Your task to perform on an android device: Go to Android settings Image 0: 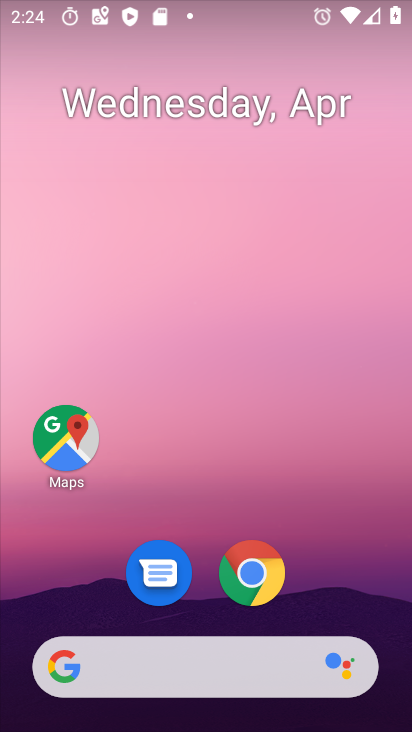
Step 0: drag from (343, 556) to (324, 125)
Your task to perform on an android device: Go to Android settings Image 1: 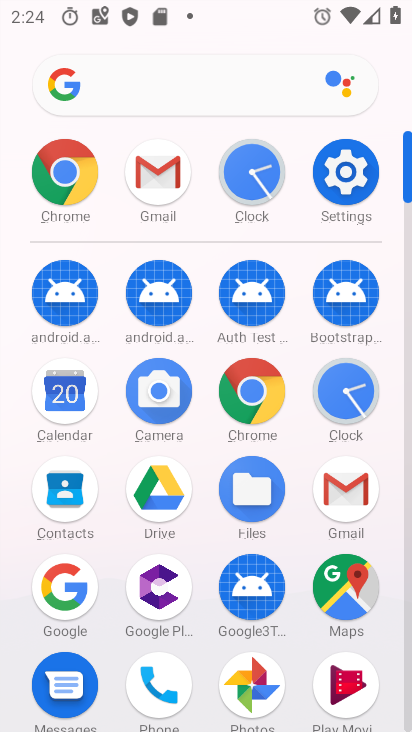
Step 1: click (351, 177)
Your task to perform on an android device: Go to Android settings Image 2: 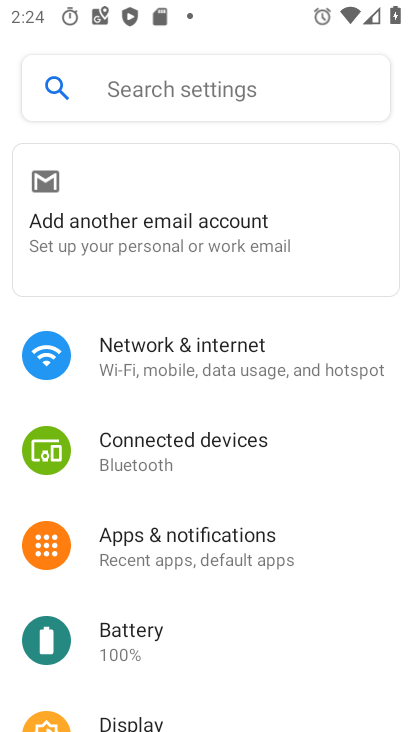
Step 2: drag from (349, 536) to (351, 303)
Your task to perform on an android device: Go to Android settings Image 3: 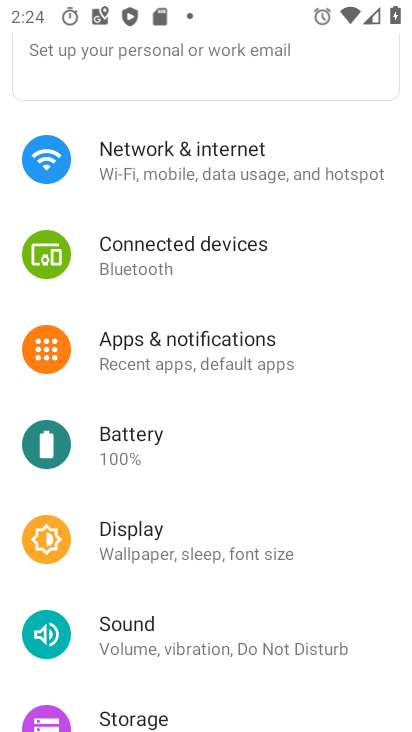
Step 3: drag from (346, 556) to (342, 347)
Your task to perform on an android device: Go to Android settings Image 4: 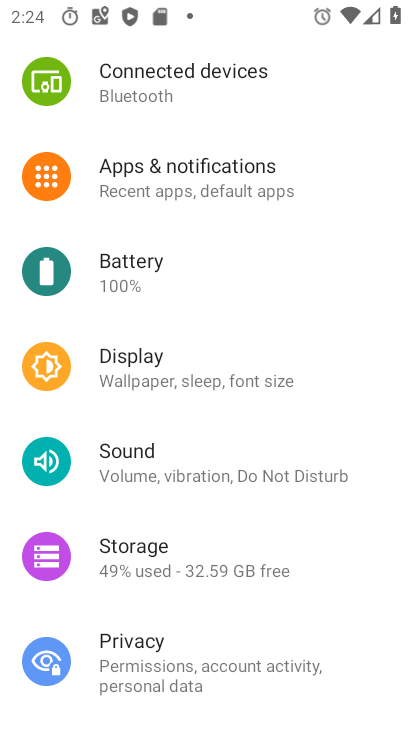
Step 4: drag from (361, 579) to (362, 351)
Your task to perform on an android device: Go to Android settings Image 5: 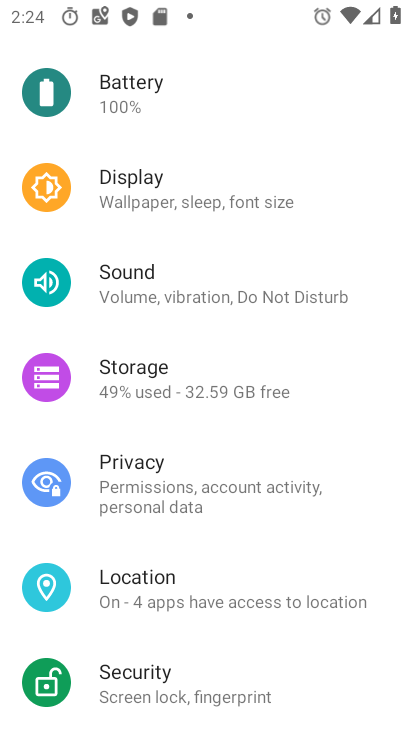
Step 5: drag from (368, 642) to (364, 398)
Your task to perform on an android device: Go to Android settings Image 6: 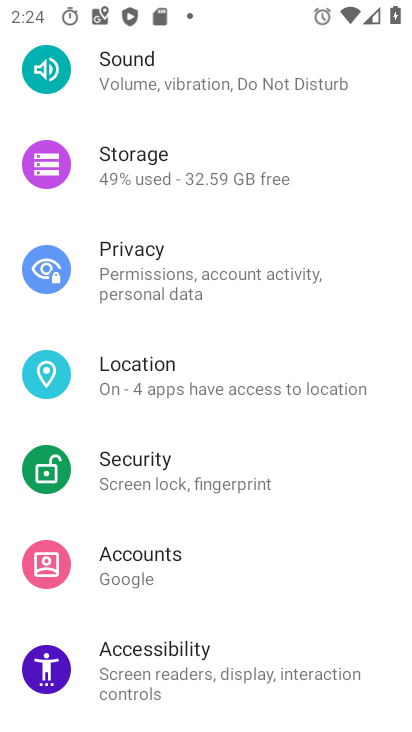
Step 6: drag from (340, 565) to (342, 389)
Your task to perform on an android device: Go to Android settings Image 7: 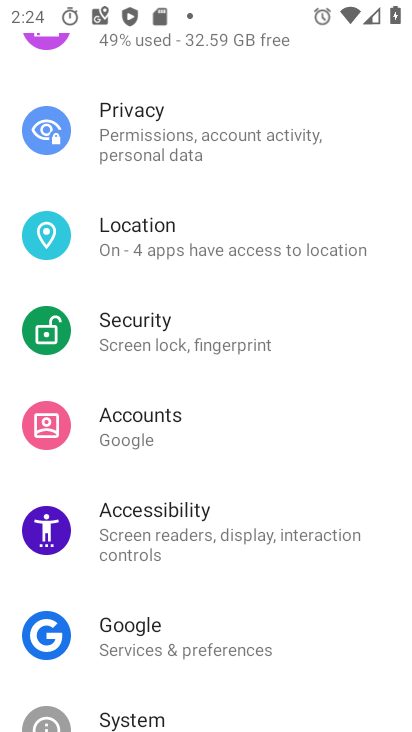
Step 7: drag from (355, 623) to (359, 421)
Your task to perform on an android device: Go to Android settings Image 8: 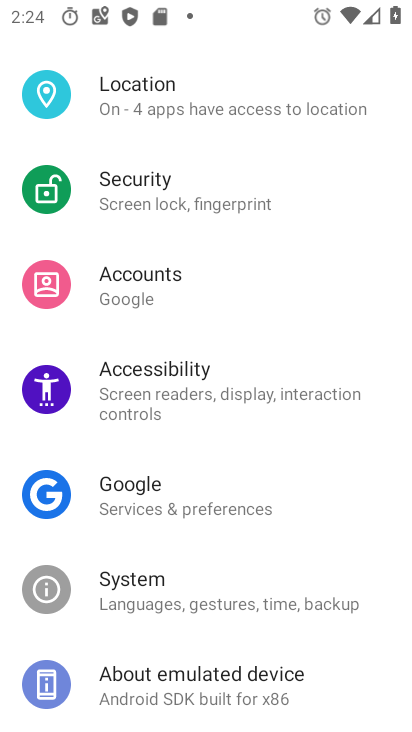
Step 8: drag from (330, 649) to (335, 464)
Your task to perform on an android device: Go to Android settings Image 9: 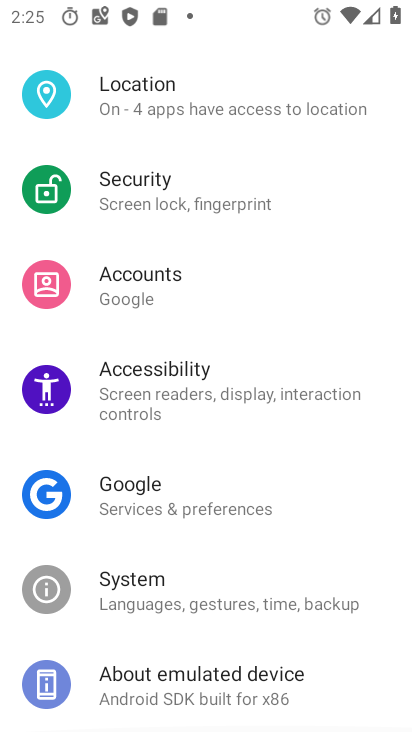
Step 9: click (244, 605)
Your task to perform on an android device: Go to Android settings Image 10: 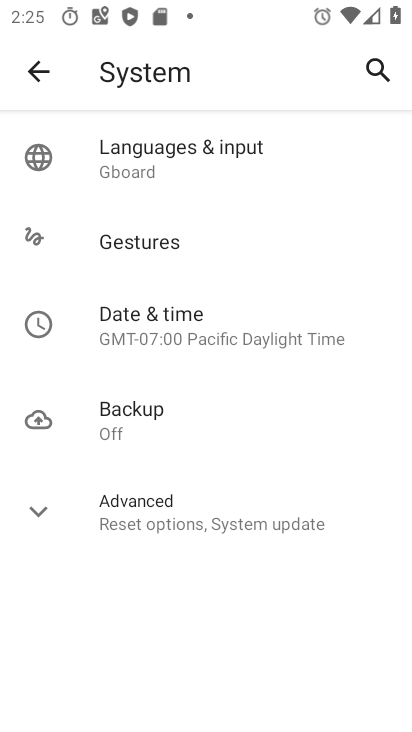
Step 10: click (235, 509)
Your task to perform on an android device: Go to Android settings Image 11: 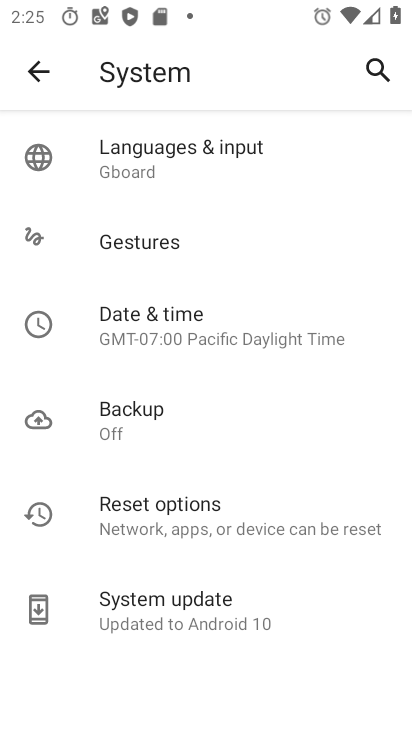
Step 11: task complete